Your task to perform on an android device: Check the weather Image 0: 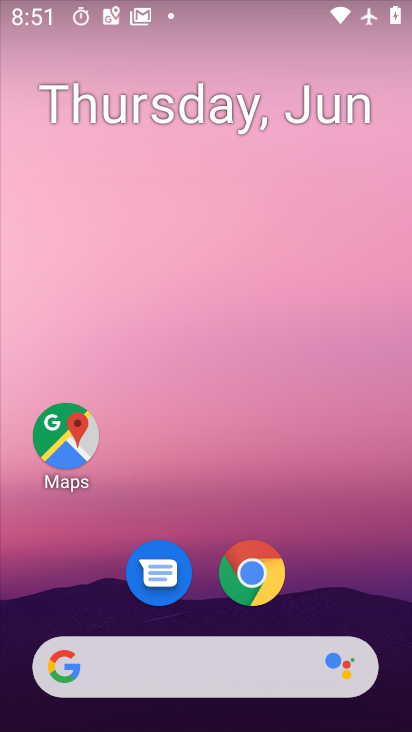
Step 0: click (265, 565)
Your task to perform on an android device: Check the weather Image 1: 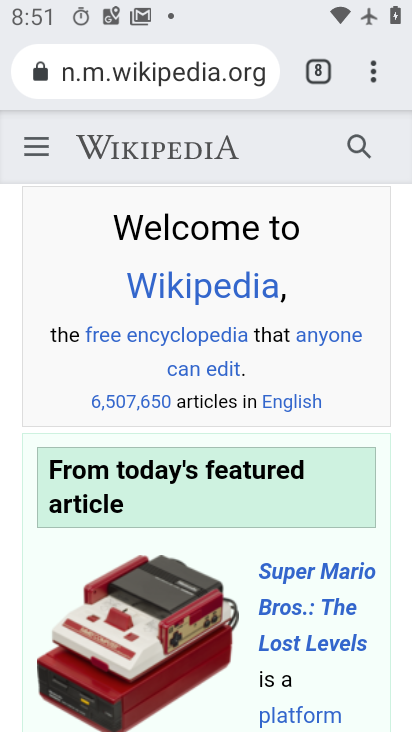
Step 1: click (370, 58)
Your task to perform on an android device: Check the weather Image 2: 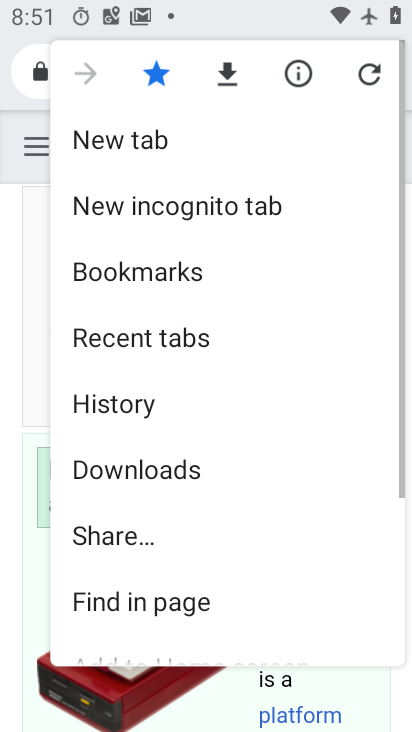
Step 2: click (114, 140)
Your task to perform on an android device: Check the weather Image 3: 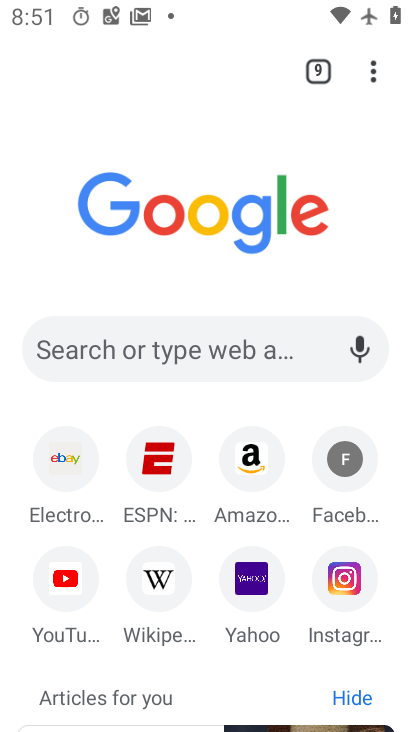
Step 3: click (238, 342)
Your task to perform on an android device: Check the weather Image 4: 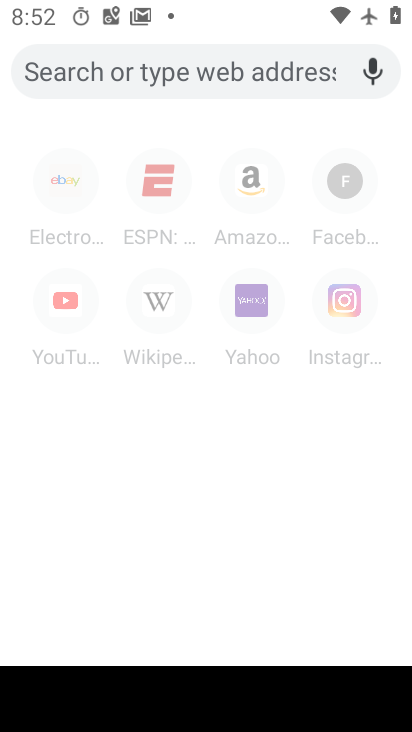
Step 4: type "Check the weather"
Your task to perform on an android device: Check the weather Image 5: 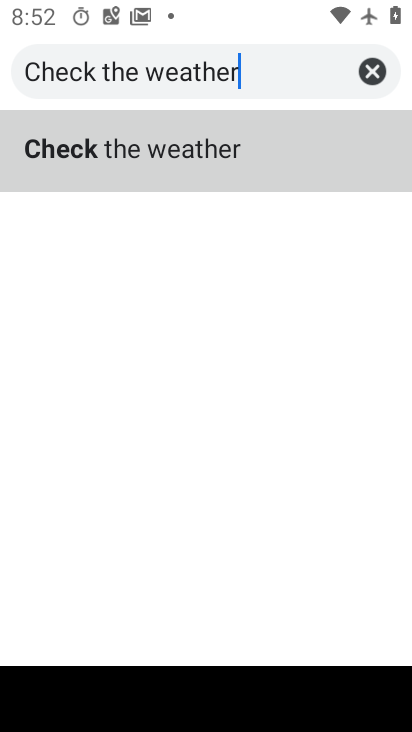
Step 5: click (281, 162)
Your task to perform on an android device: Check the weather Image 6: 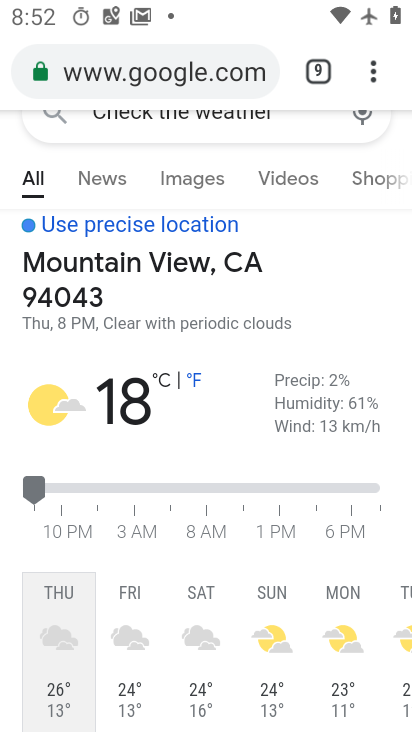
Step 6: task complete